Your task to perform on an android device: check storage Image 0: 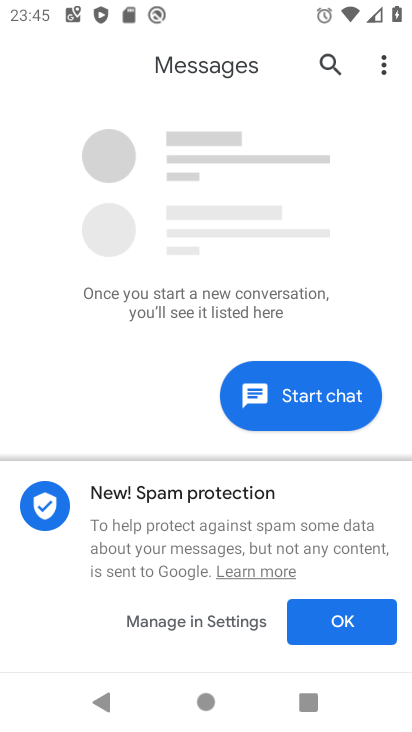
Step 0: press home button
Your task to perform on an android device: check storage Image 1: 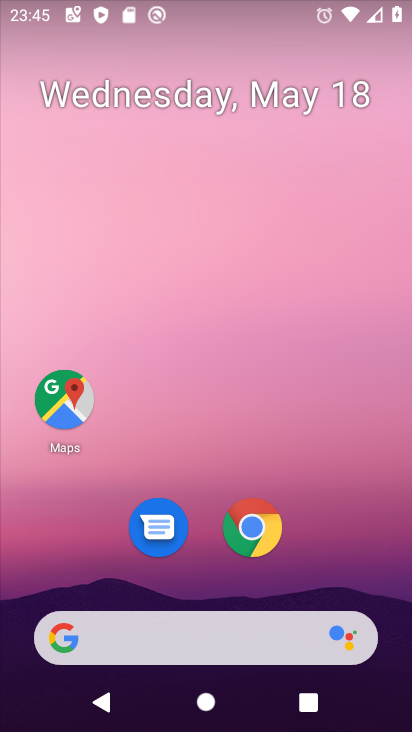
Step 1: drag from (371, 556) to (361, 173)
Your task to perform on an android device: check storage Image 2: 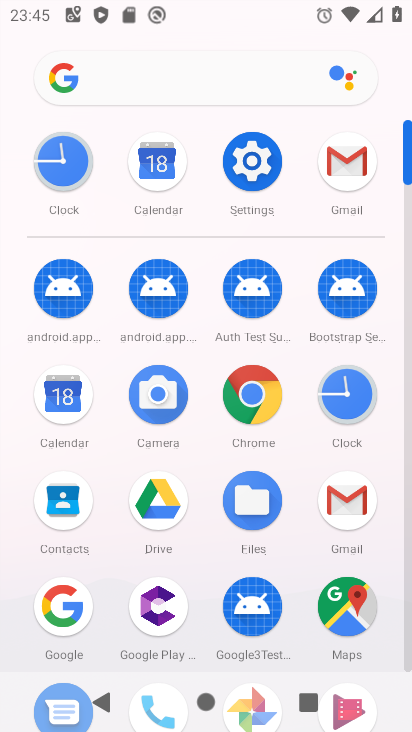
Step 2: click (277, 177)
Your task to perform on an android device: check storage Image 3: 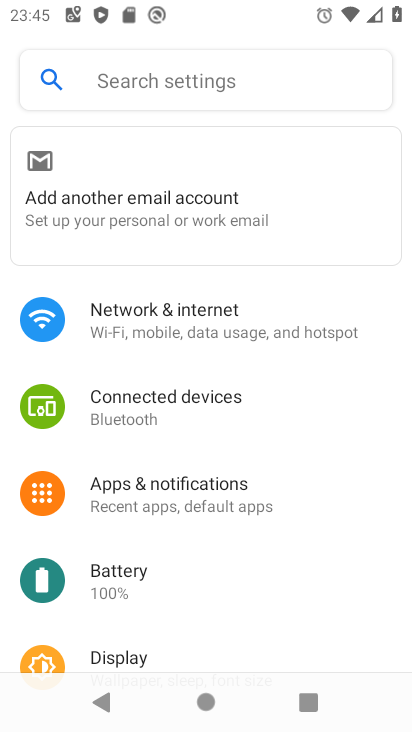
Step 3: drag from (166, 629) to (201, 252)
Your task to perform on an android device: check storage Image 4: 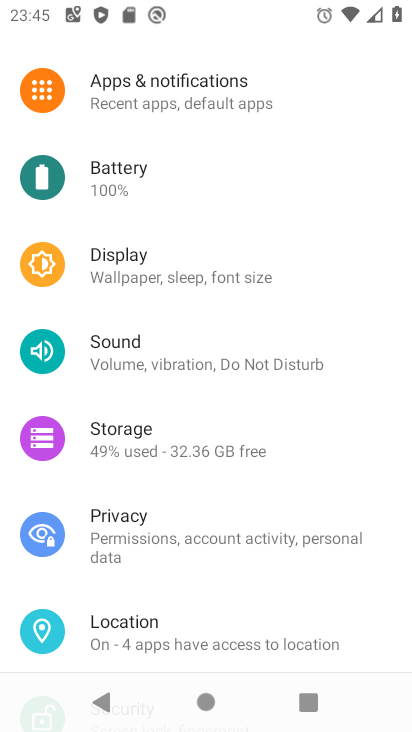
Step 4: click (223, 452)
Your task to perform on an android device: check storage Image 5: 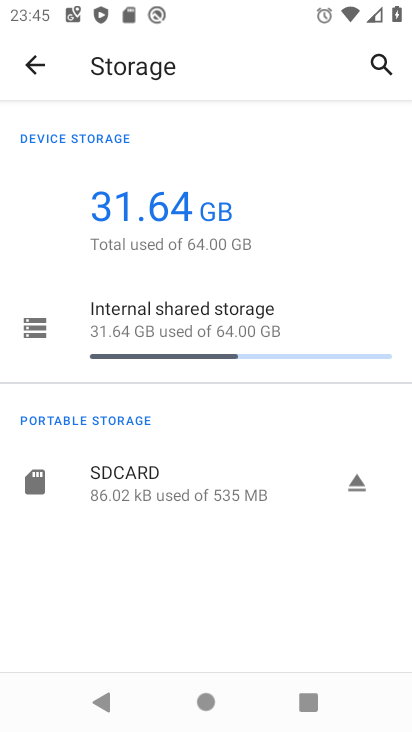
Step 5: task complete